Your task to perform on an android device: Go to wifi settings Image 0: 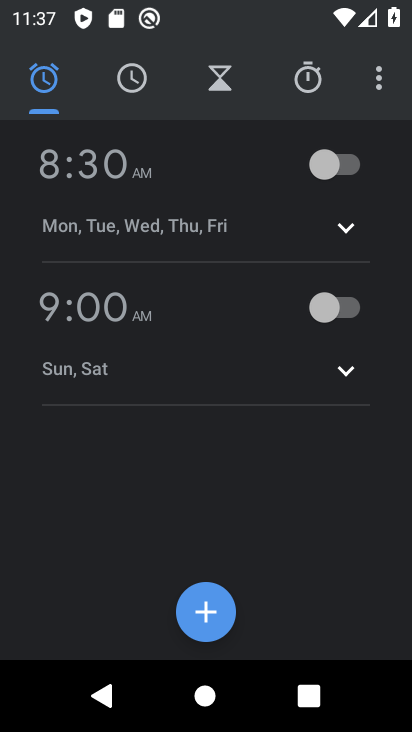
Step 0: press home button
Your task to perform on an android device: Go to wifi settings Image 1: 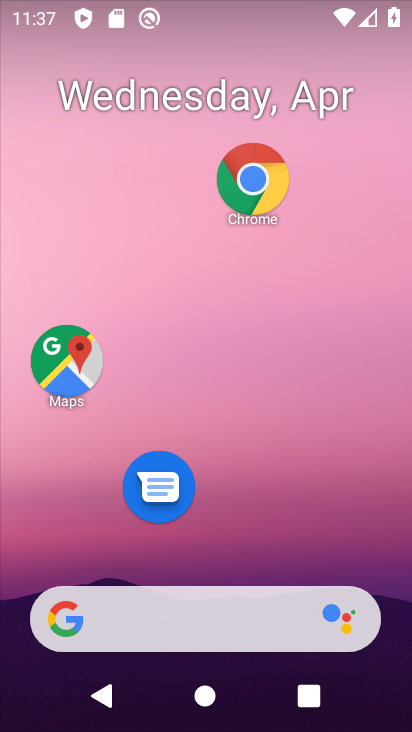
Step 1: drag from (235, 509) to (223, 26)
Your task to perform on an android device: Go to wifi settings Image 2: 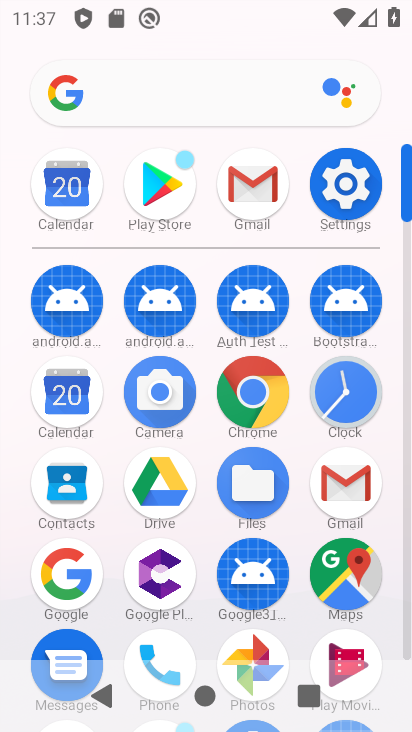
Step 2: click (351, 188)
Your task to perform on an android device: Go to wifi settings Image 3: 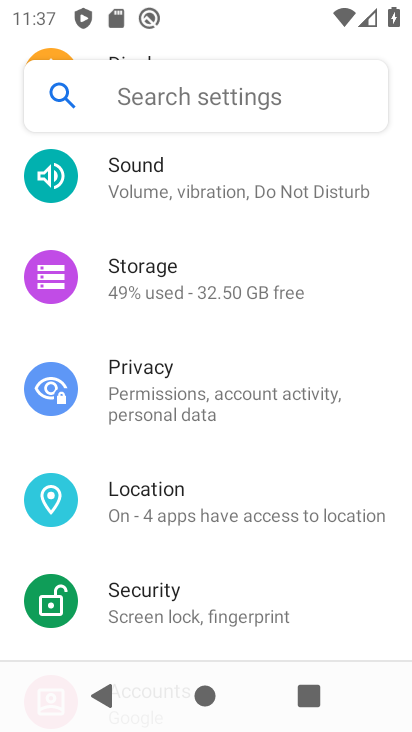
Step 3: drag from (278, 237) to (247, 613)
Your task to perform on an android device: Go to wifi settings Image 4: 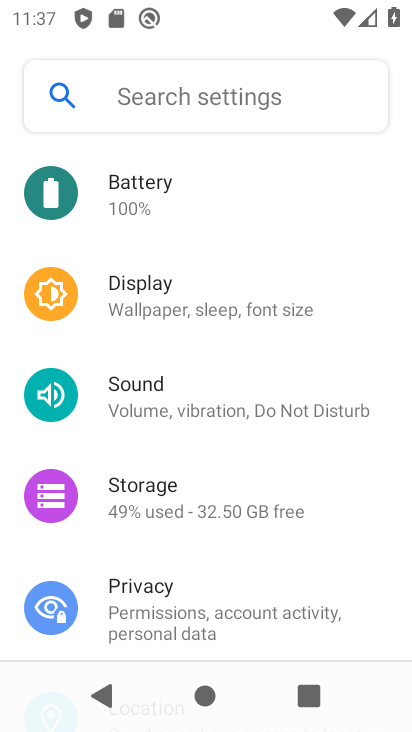
Step 4: drag from (230, 233) to (237, 617)
Your task to perform on an android device: Go to wifi settings Image 5: 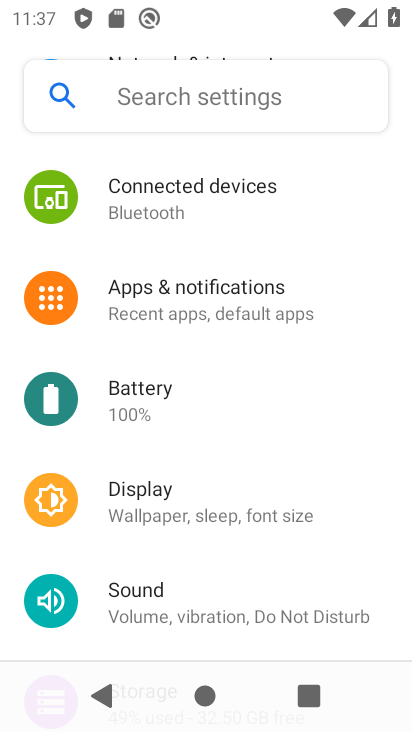
Step 5: drag from (246, 245) to (233, 547)
Your task to perform on an android device: Go to wifi settings Image 6: 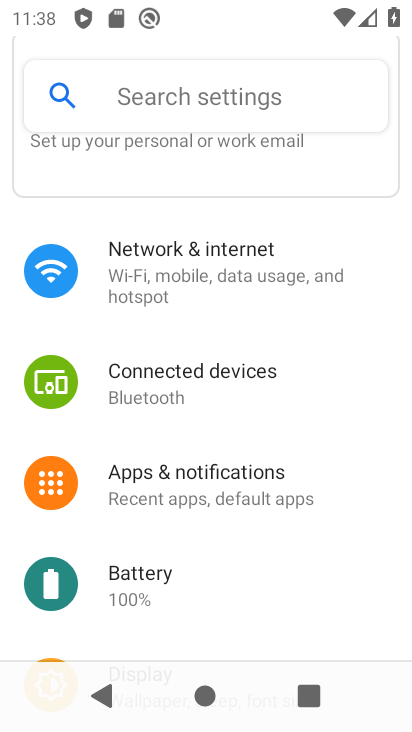
Step 6: click (199, 275)
Your task to perform on an android device: Go to wifi settings Image 7: 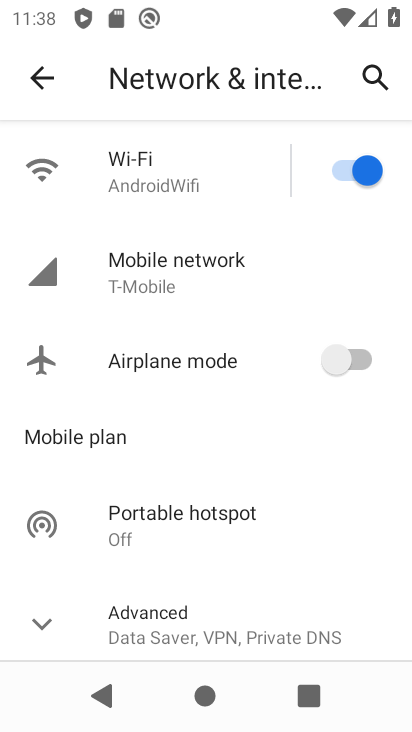
Step 7: click (153, 162)
Your task to perform on an android device: Go to wifi settings Image 8: 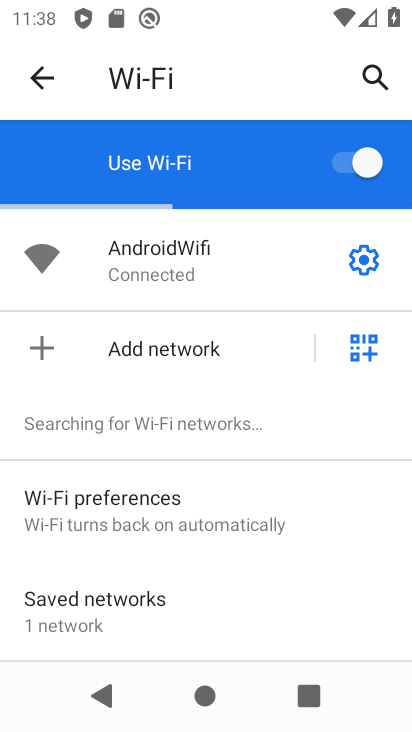
Step 8: task complete